Your task to perform on an android device: Go to eBay Image 0: 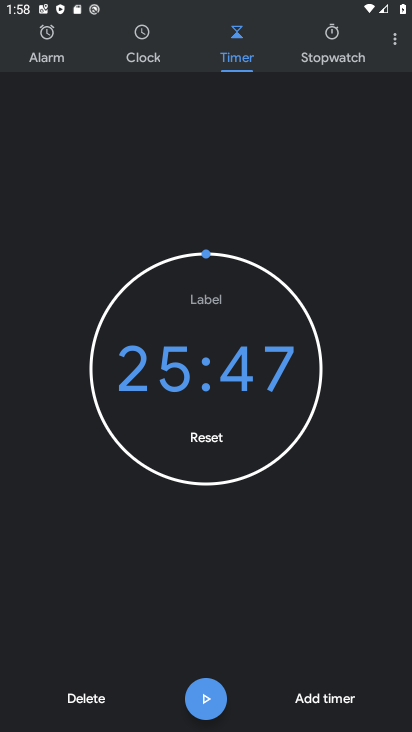
Step 0: press home button
Your task to perform on an android device: Go to eBay Image 1: 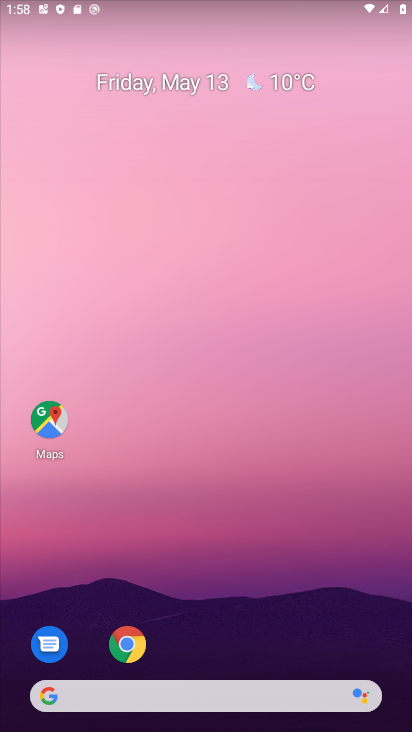
Step 1: drag from (210, 722) to (216, 208)
Your task to perform on an android device: Go to eBay Image 2: 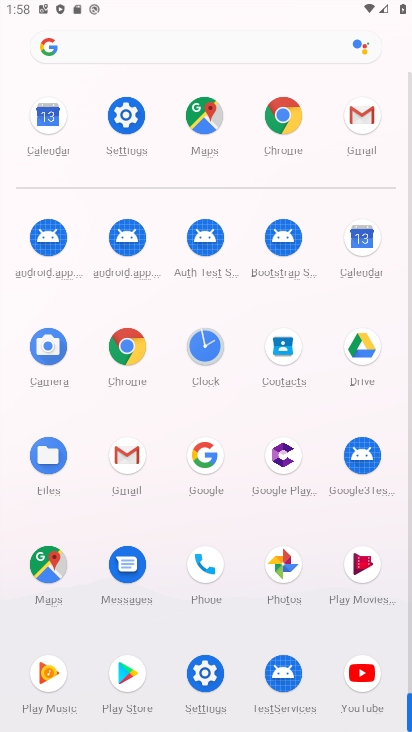
Step 2: click (283, 115)
Your task to perform on an android device: Go to eBay Image 3: 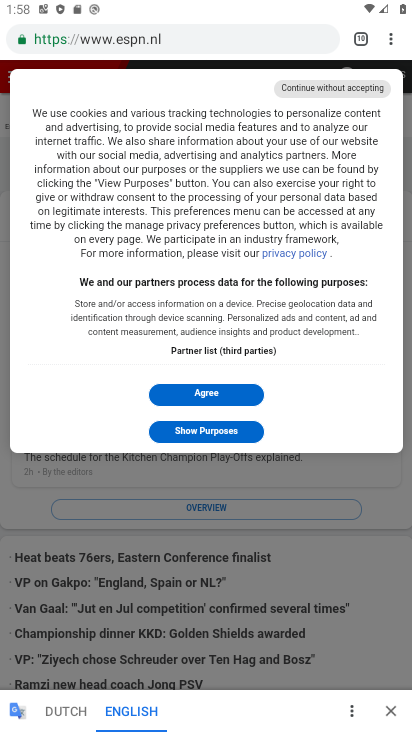
Step 3: click (390, 40)
Your task to perform on an android device: Go to eBay Image 4: 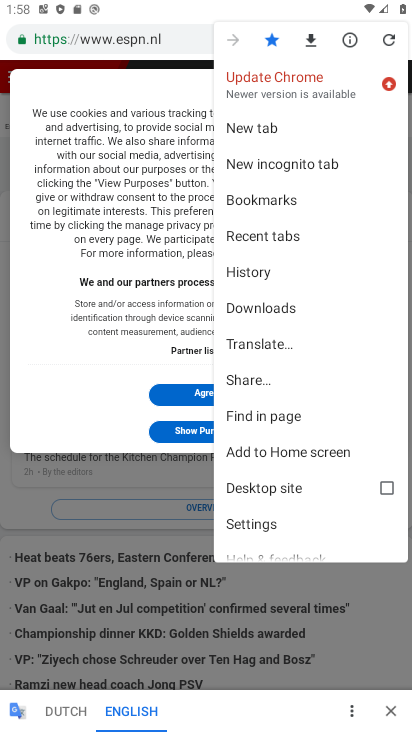
Step 4: click (254, 128)
Your task to perform on an android device: Go to eBay Image 5: 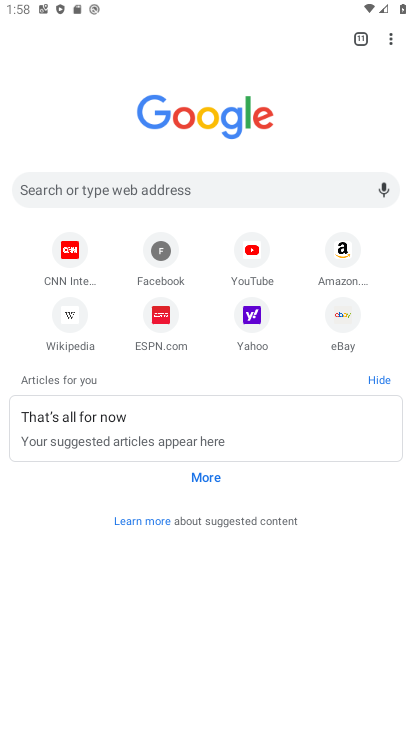
Step 5: click (178, 185)
Your task to perform on an android device: Go to eBay Image 6: 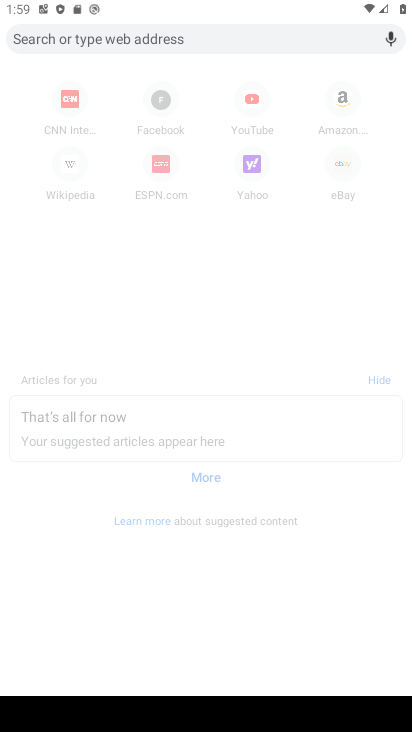
Step 6: type "eBay"
Your task to perform on an android device: Go to eBay Image 7: 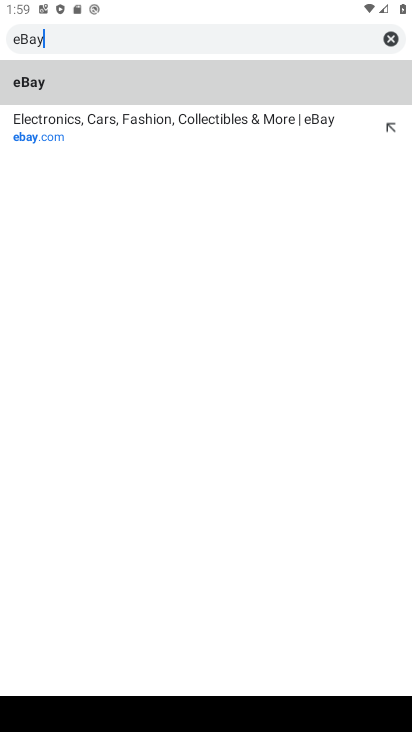
Step 7: click (69, 78)
Your task to perform on an android device: Go to eBay Image 8: 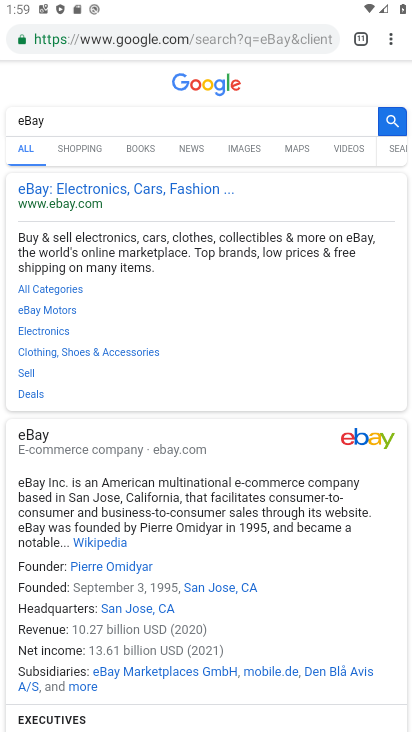
Step 8: click (74, 187)
Your task to perform on an android device: Go to eBay Image 9: 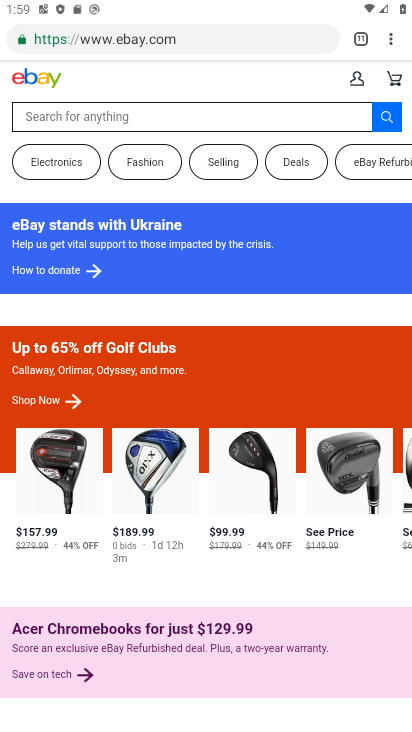
Step 9: task complete